Your task to perform on an android device: Open Google Image 0: 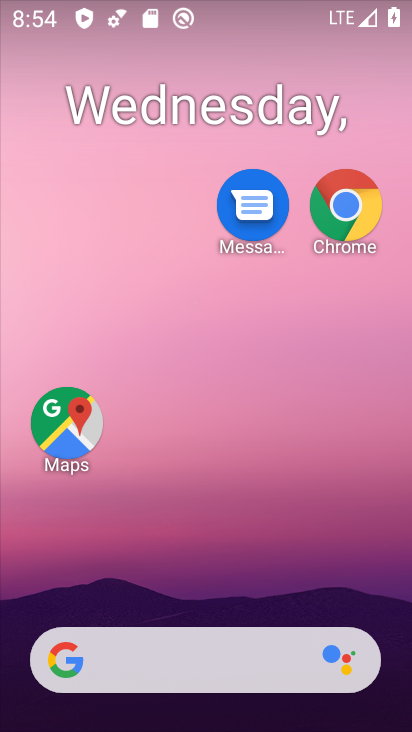
Step 0: drag from (213, 571) to (374, 613)
Your task to perform on an android device: Open Google Image 1: 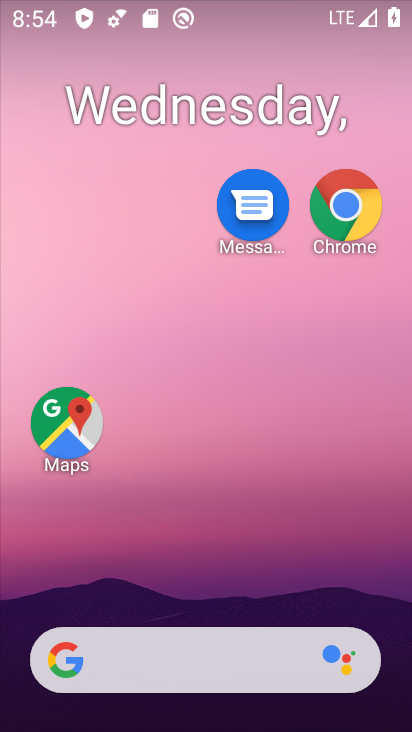
Step 1: drag from (69, 633) to (202, 18)
Your task to perform on an android device: Open Google Image 2: 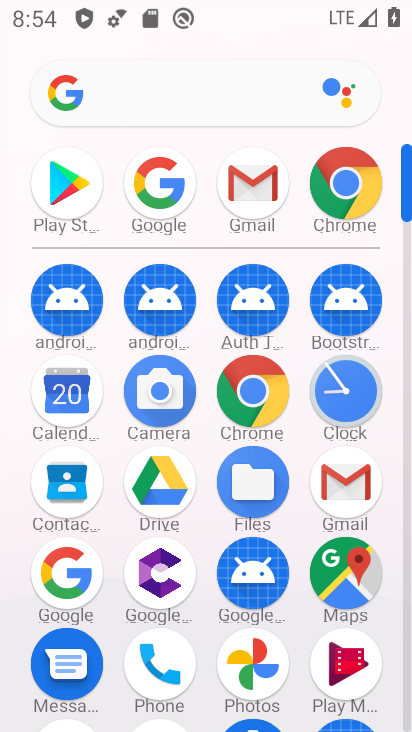
Step 2: click (77, 560)
Your task to perform on an android device: Open Google Image 3: 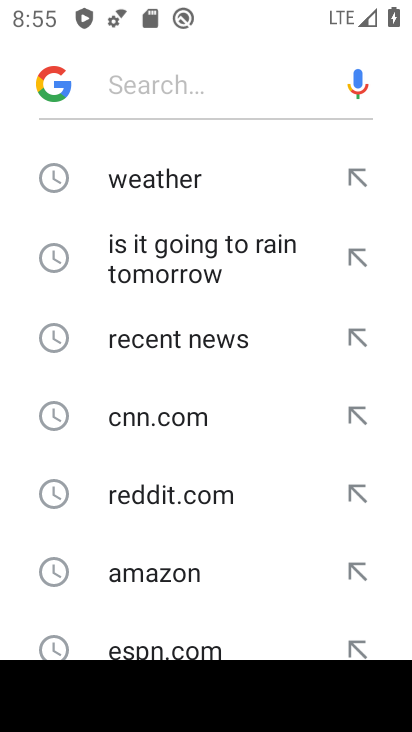
Step 3: press back button
Your task to perform on an android device: Open Google Image 4: 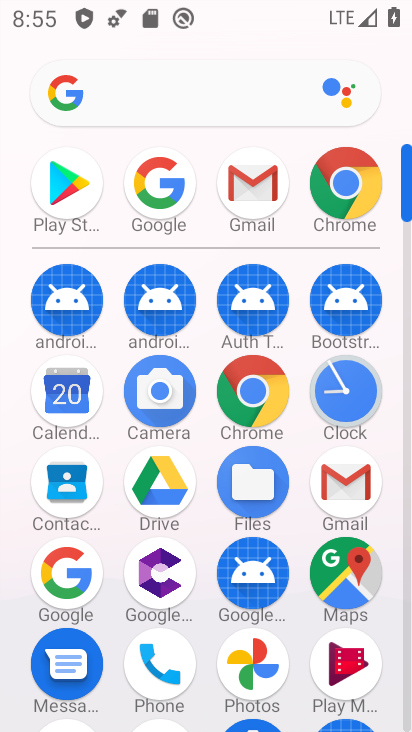
Step 4: click (62, 562)
Your task to perform on an android device: Open Google Image 5: 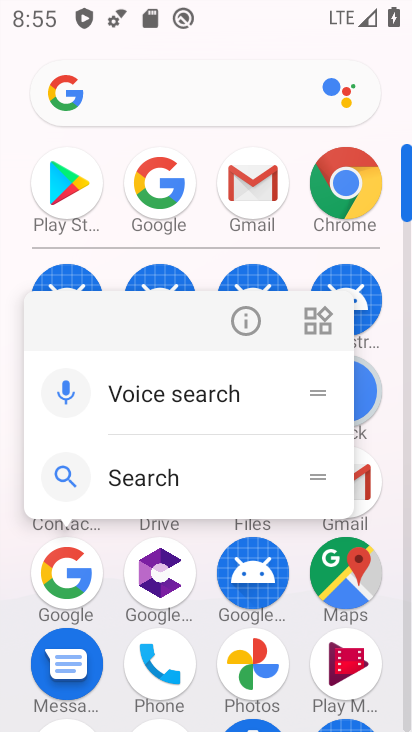
Step 5: click (248, 315)
Your task to perform on an android device: Open Google Image 6: 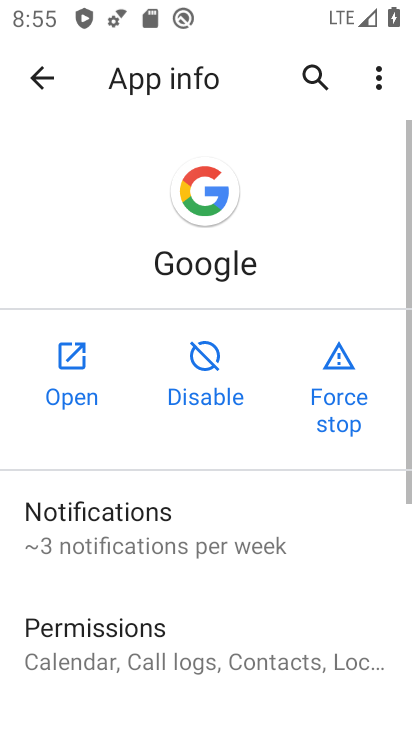
Step 6: click (63, 375)
Your task to perform on an android device: Open Google Image 7: 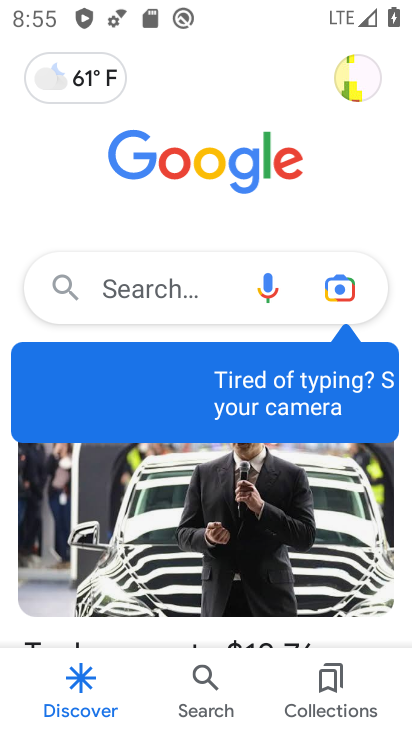
Step 7: task complete